Your task to perform on an android device: toggle translation in the chrome app Image 0: 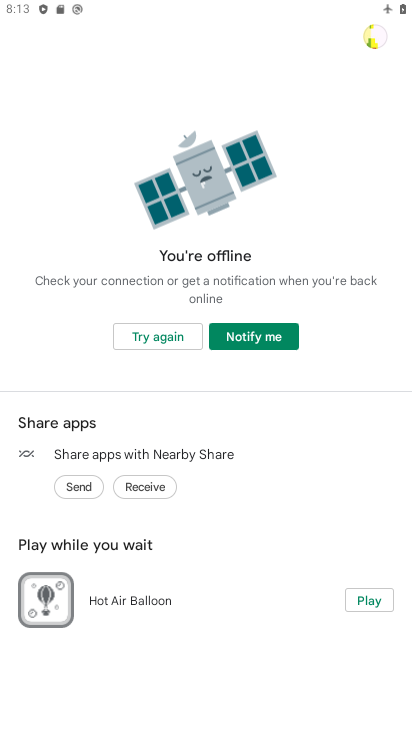
Step 0: press home button
Your task to perform on an android device: toggle translation in the chrome app Image 1: 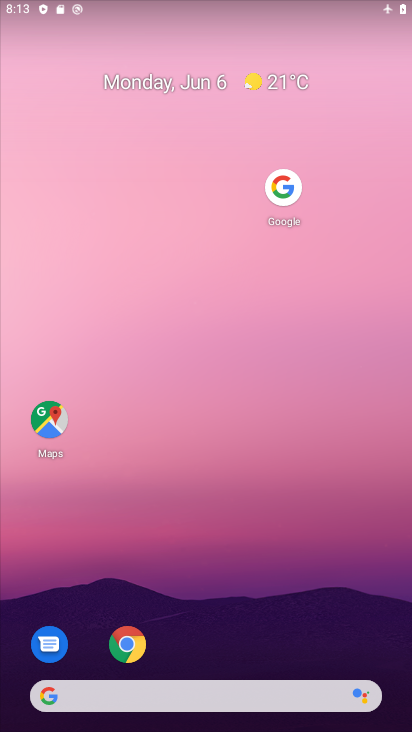
Step 1: click (121, 634)
Your task to perform on an android device: toggle translation in the chrome app Image 2: 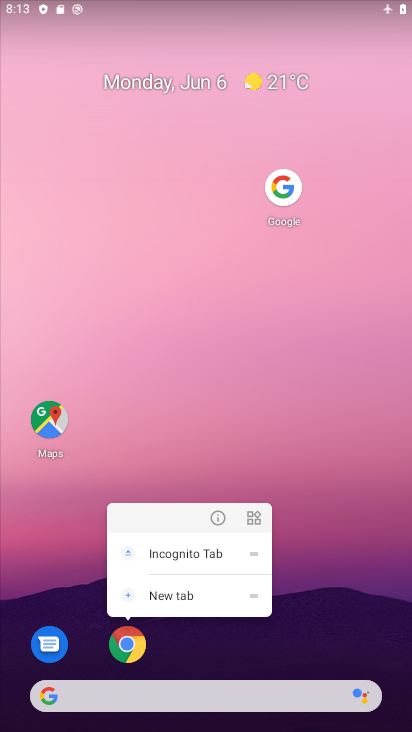
Step 2: click (120, 635)
Your task to perform on an android device: toggle translation in the chrome app Image 3: 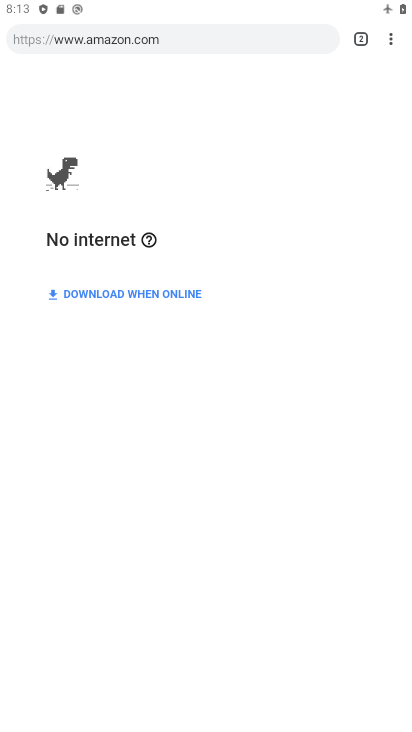
Step 3: drag from (389, 32) to (272, 444)
Your task to perform on an android device: toggle translation in the chrome app Image 4: 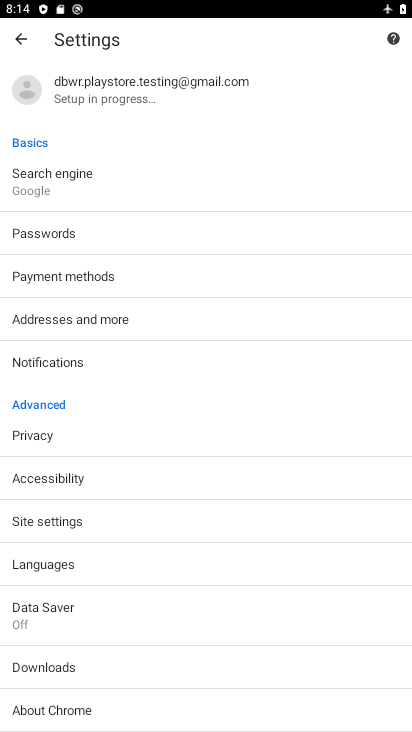
Step 4: click (109, 575)
Your task to perform on an android device: toggle translation in the chrome app Image 5: 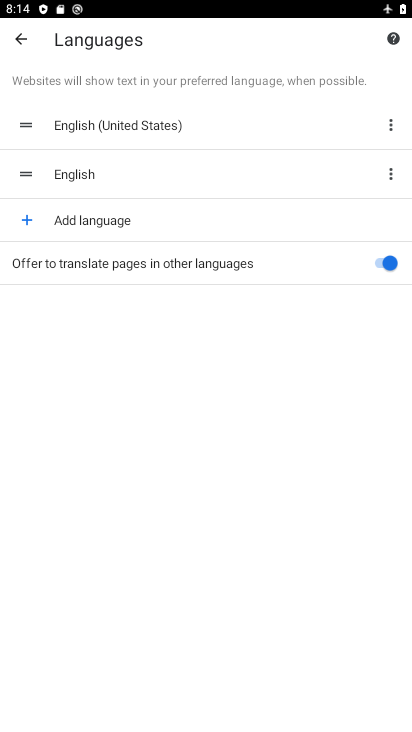
Step 5: click (372, 273)
Your task to perform on an android device: toggle translation in the chrome app Image 6: 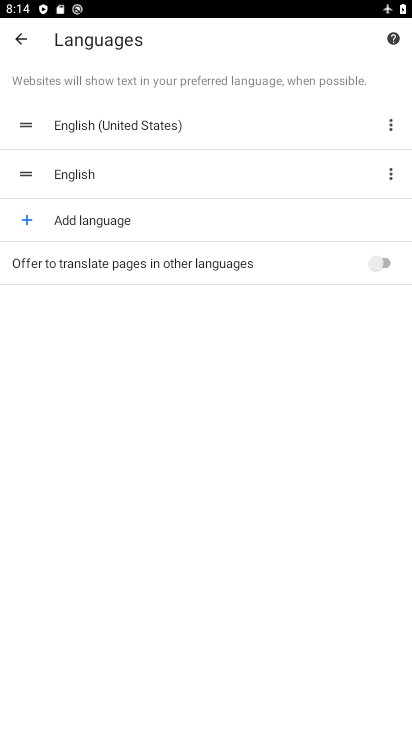
Step 6: task complete